Your task to perform on an android device: Search for sushi restaurants on Maps Image 0: 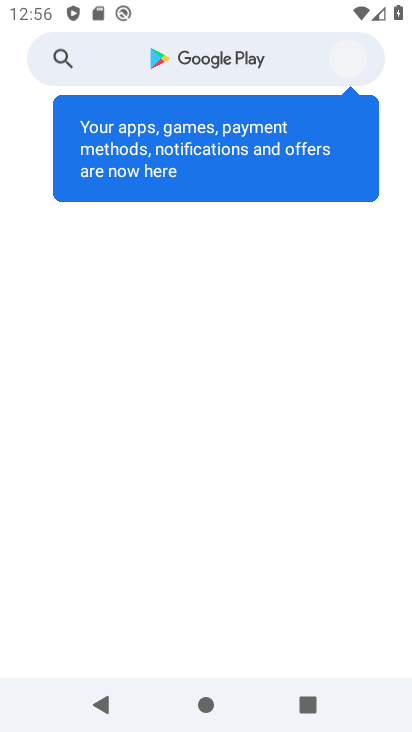
Step 0: press home button
Your task to perform on an android device: Search for sushi restaurants on Maps Image 1: 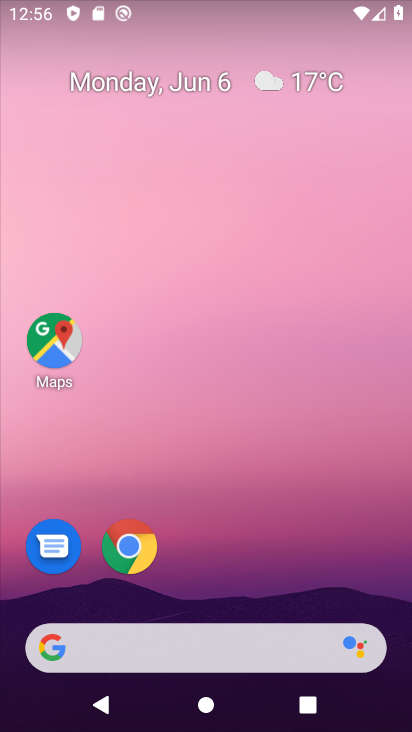
Step 1: click (56, 330)
Your task to perform on an android device: Search for sushi restaurants on Maps Image 2: 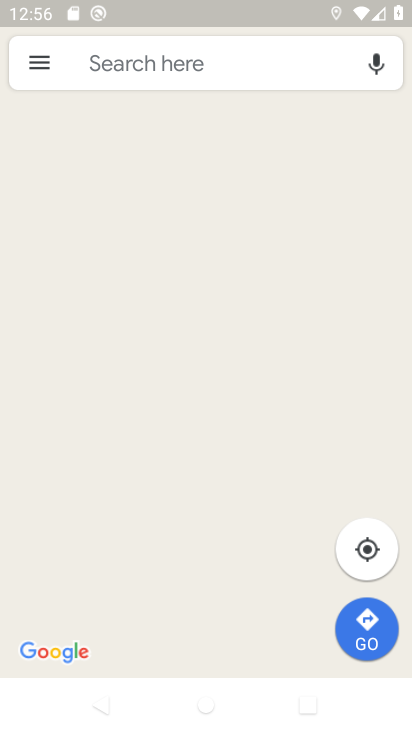
Step 2: click (177, 77)
Your task to perform on an android device: Search for sushi restaurants on Maps Image 3: 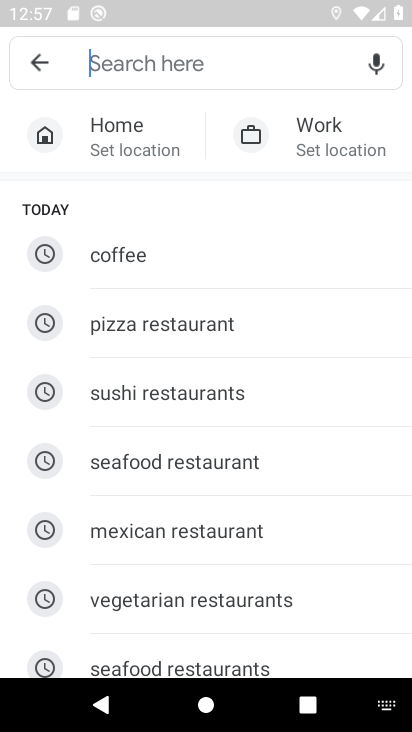
Step 3: type "sus"
Your task to perform on an android device: Search for sushi restaurants on Maps Image 4: 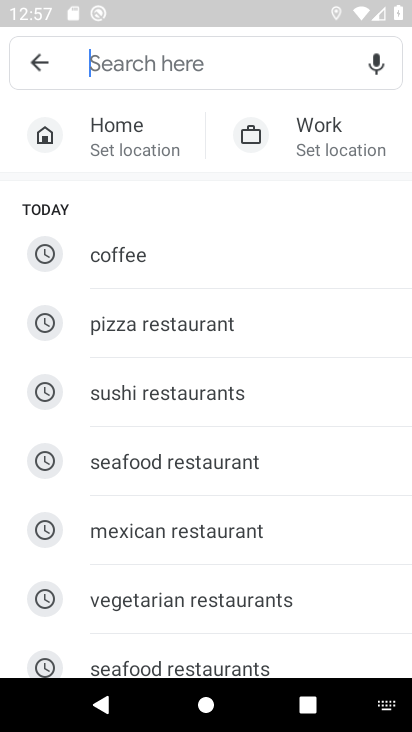
Step 4: click (265, 413)
Your task to perform on an android device: Search for sushi restaurants on Maps Image 5: 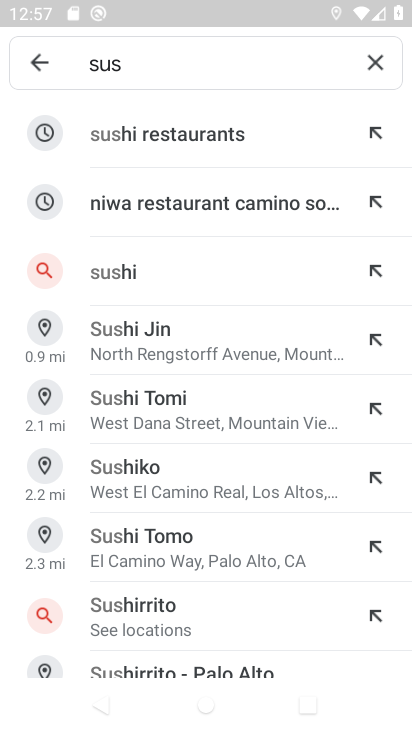
Step 5: click (192, 150)
Your task to perform on an android device: Search for sushi restaurants on Maps Image 6: 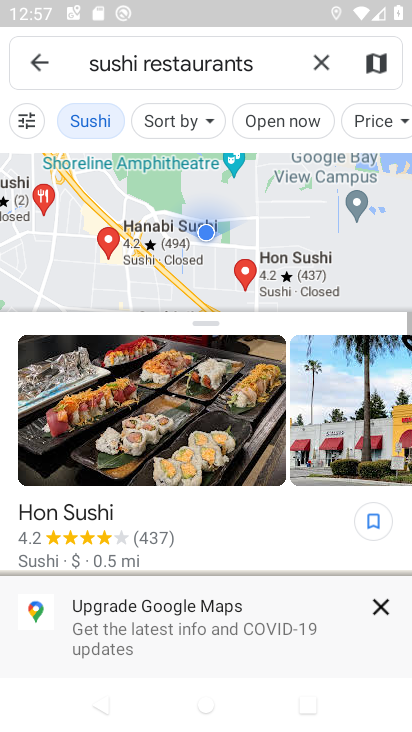
Step 6: task complete